Your task to perform on an android device: check android version Image 0: 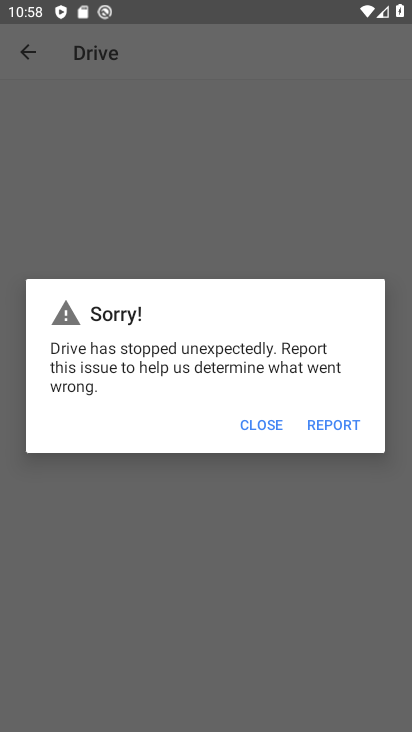
Step 0: press home button
Your task to perform on an android device: check android version Image 1: 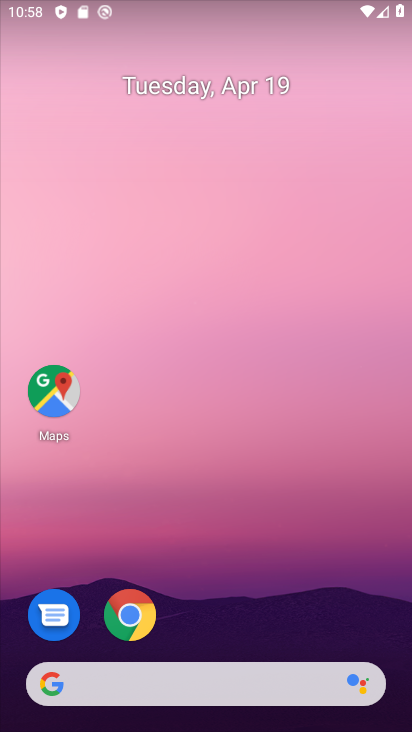
Step 1: drag from (211, 633) to (215, 154)
Your task to perform on an android device: check android version Image 2: 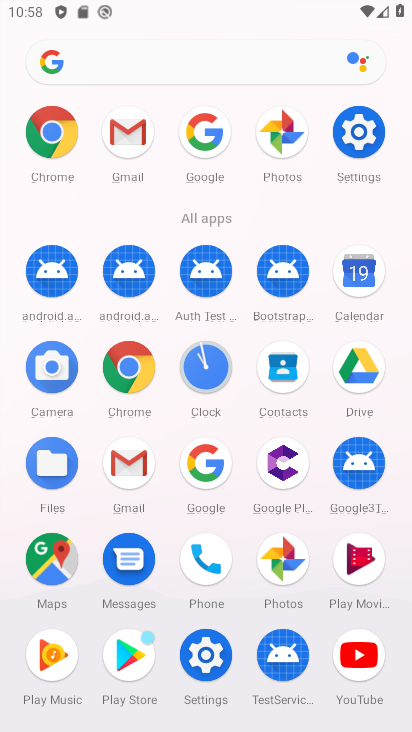
Step 2: click (365, 145)
Your task to perform on an android device: check android version Image 3: 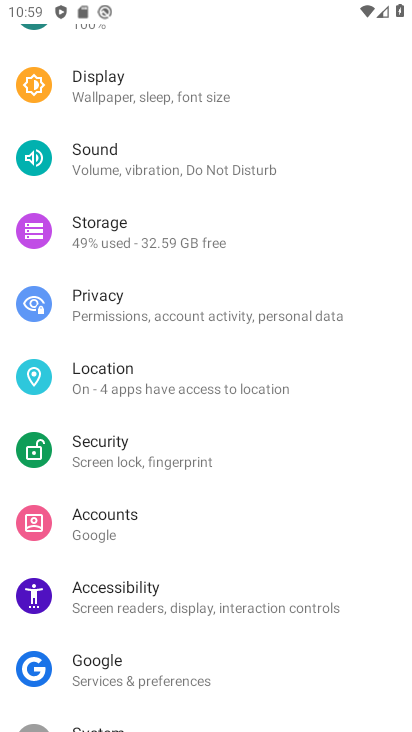
Step 3: drag from (219, 680) to (233, 297)
Your task to perform on an android device: check android version Image 4: 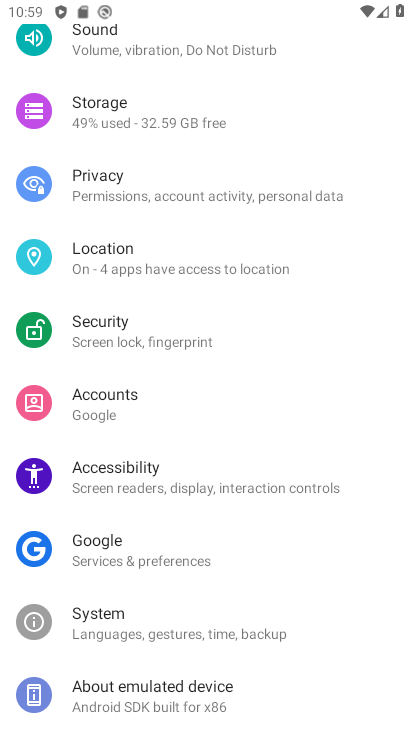
Step 4: click (166, 675)
Your task to perform on an android device: check android version Image 5: 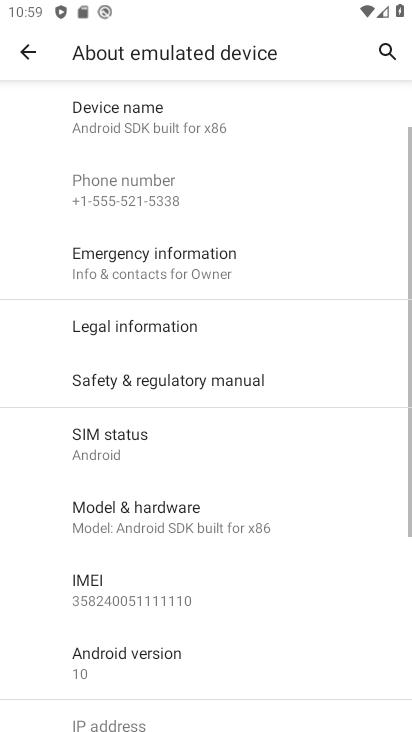
Step 5: drag from (240, 582) to (264, 337)
Your task to perform on an android device: check android version Image 6: 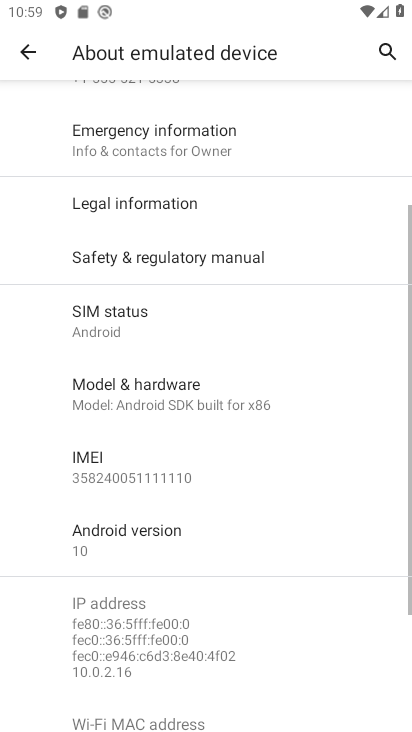
Step 6: click (159, 558)
Your task to perform on an android device: check android version Image 7: 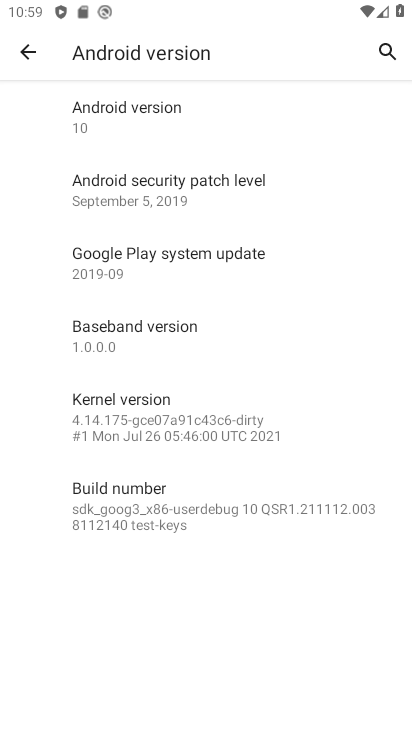
Step 7: click (182, 134)
Your task to perform on an android device: check android version Image 8: 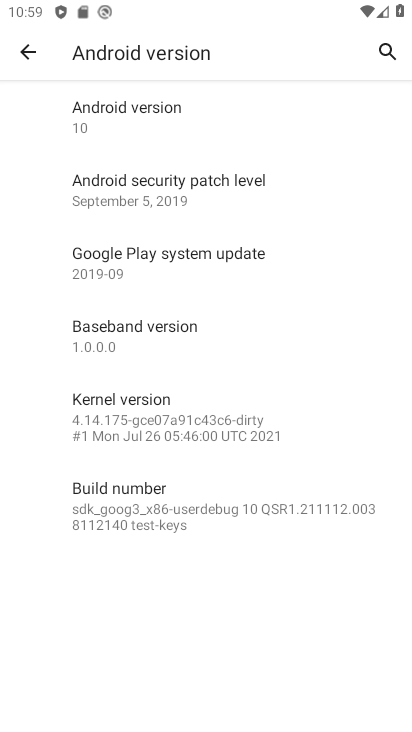
Step 8: task complete